Your task to perform on an android device: check google app version Image 0: 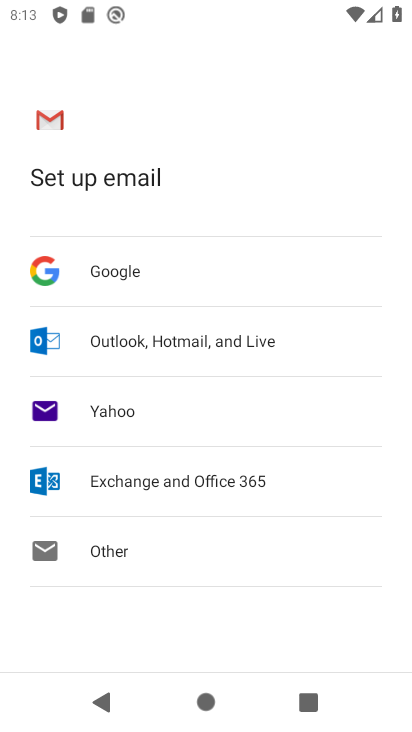
Step 0: press back button
Your task to perform on an android device: check google app version Image 1: 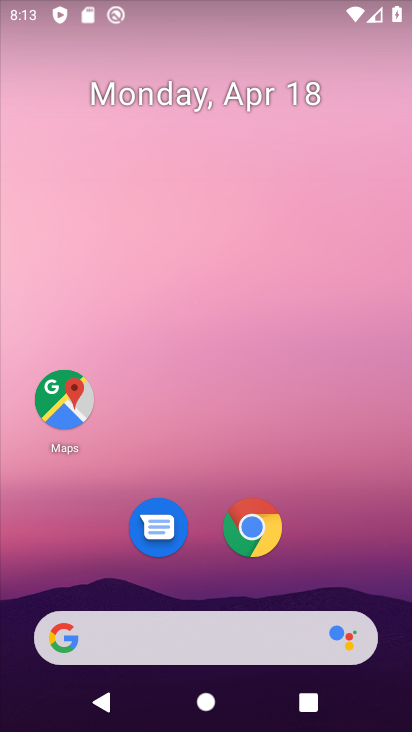
Step 1: drag from (172, 544) to (286, 70)
Your task to perform on an android device: check google app version Image 2: 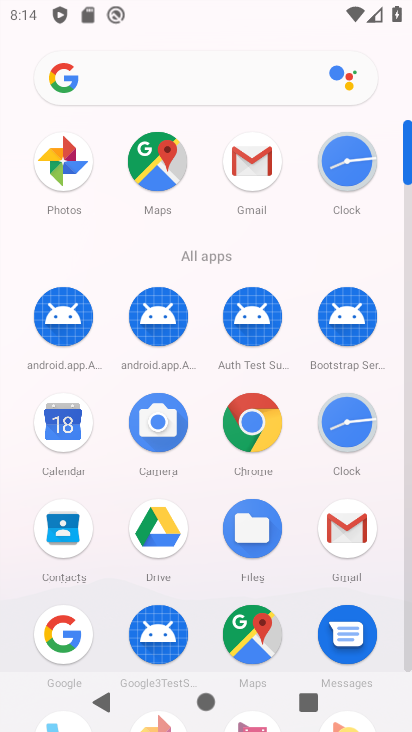
Step 2: drag from (216, 467) to (317, 245)
Your task to perform on an android device: check google app version Image 3: 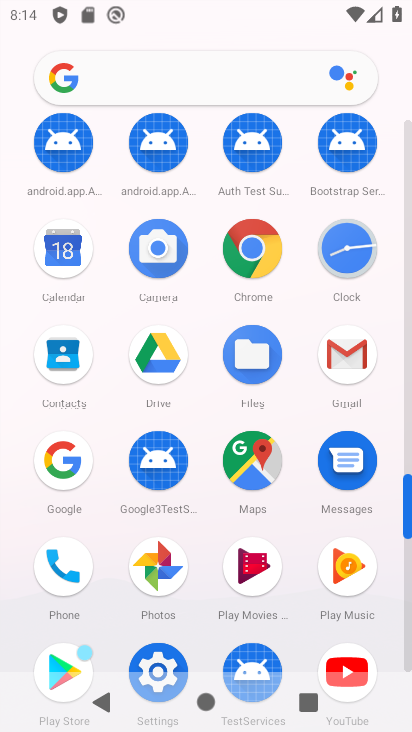
Step 3: click (150, 669)
Your task to perform on an android device: check google app version Image 4: 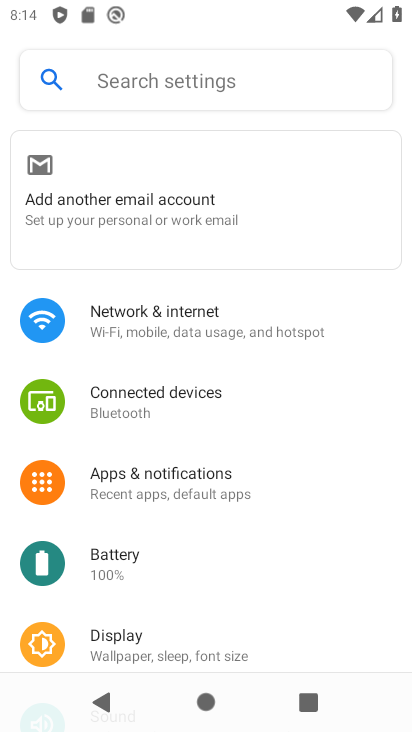
Step 4: click (209, 481)
Your task to perform on an android device: check google app version Image 5: 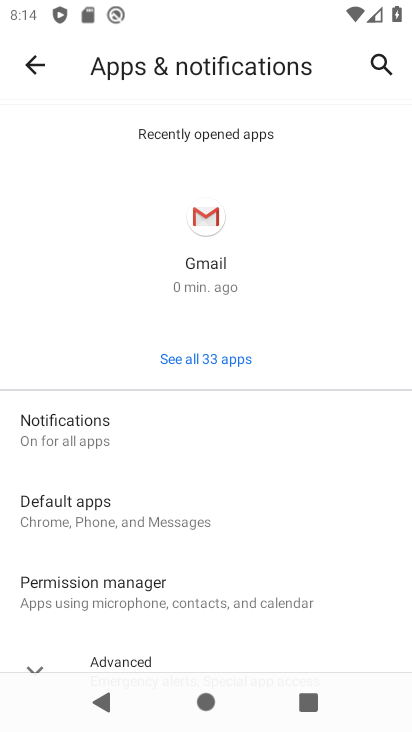
Step 5: click (223, 361)
Your task to perform on an android device: check google app version Image 6: 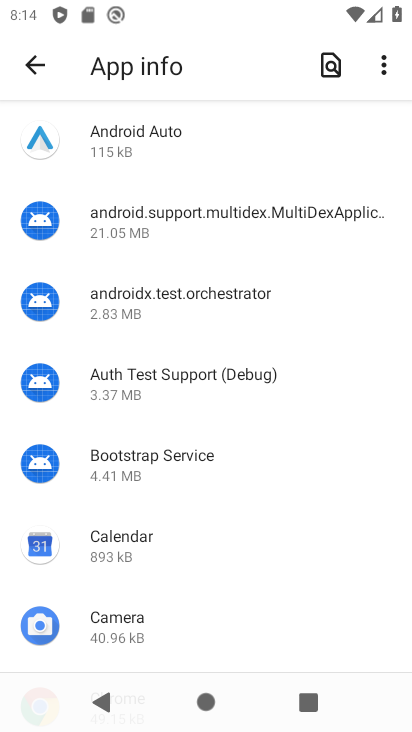
Step 6: drag from (190, 599) to (327, 133)
Your task to perform on an android device: check google app version Image 7: 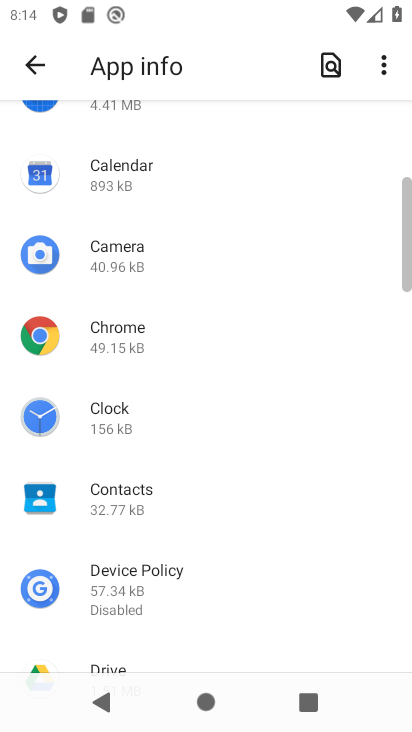
Step 7: drag from (254, 655) to (344, 198)
Your task to perform on an android device: check google app version Image 8: 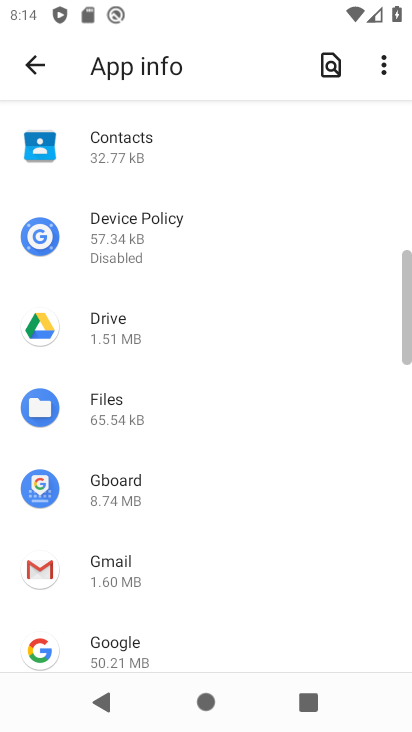
Step 8: drag from (173, 606) to (253, 297)
Your task to perform on an android device: check google app version Image 9: 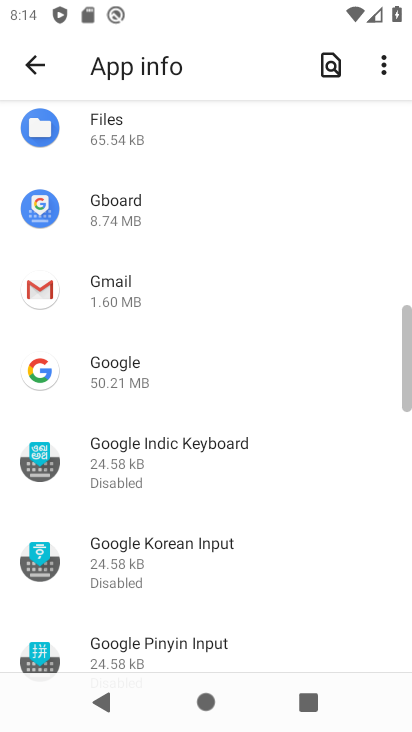
Step 9: click (164, 387)
Your task to perform on an android device: check google app version Image 10: 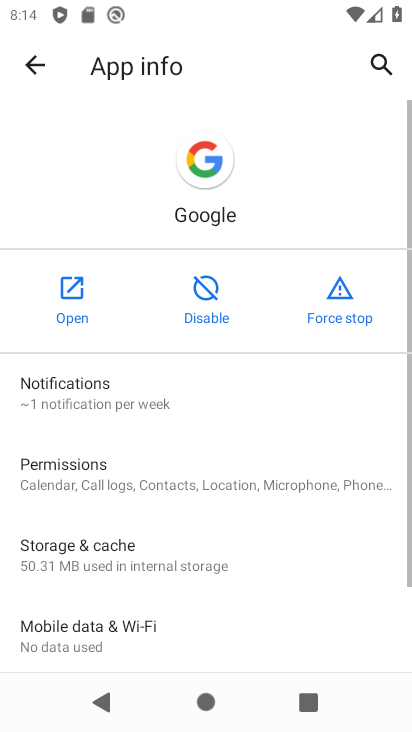
Step 10: drag from (176, 661) to (277, 197)
Your task to perform on an android device: check google app version Image 11: 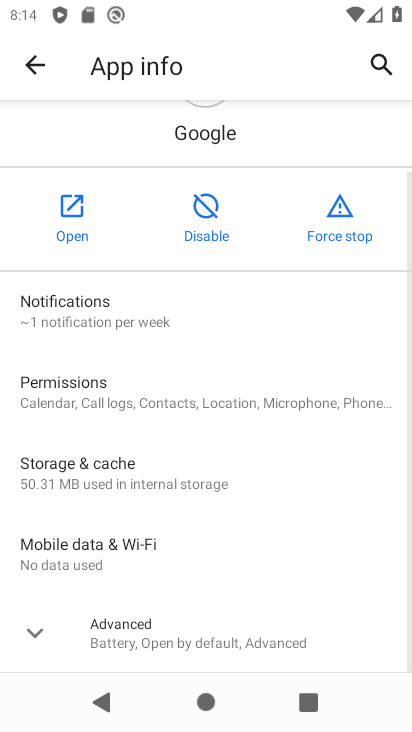
Step 11: click (226, 647)
Your task to perform on an android device: check google app version Image 12: 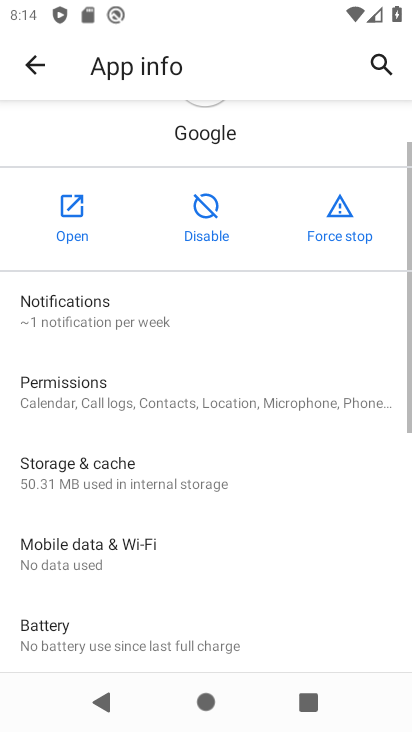
Step 12: task complete